Your task to perform on an android device: see sites visited before in the chrome app Image 0: 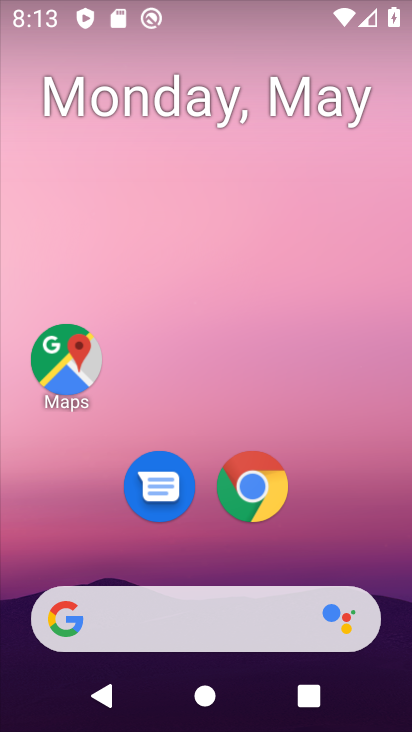
Step 0: click (247, 478)
Your task to perform on an android device: see sites visited before in the chrome app Image 1: 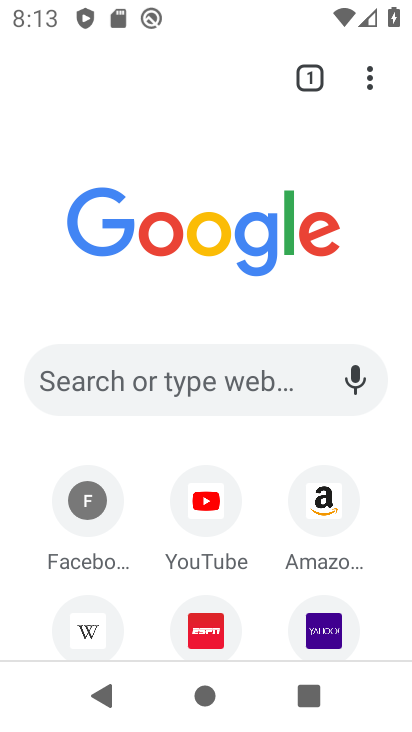
Step 1: click (372, 76)
Your task to perform on an android device: see sites visited before in the chrome app Image 2: 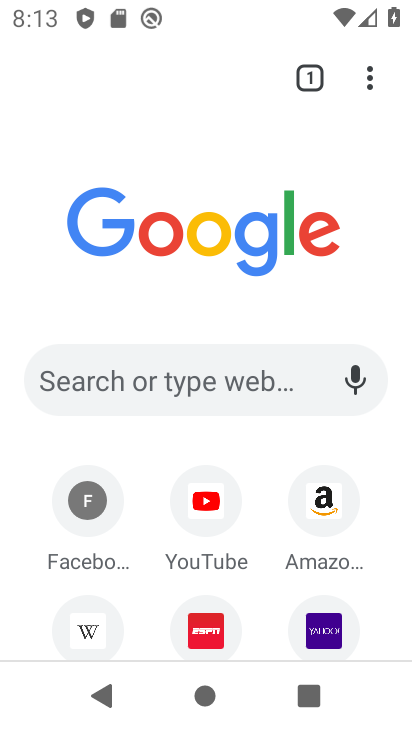
Step 2: click (371, 77)
Your task to perform on an android device: see sites visited before in the chrome app Image 3: 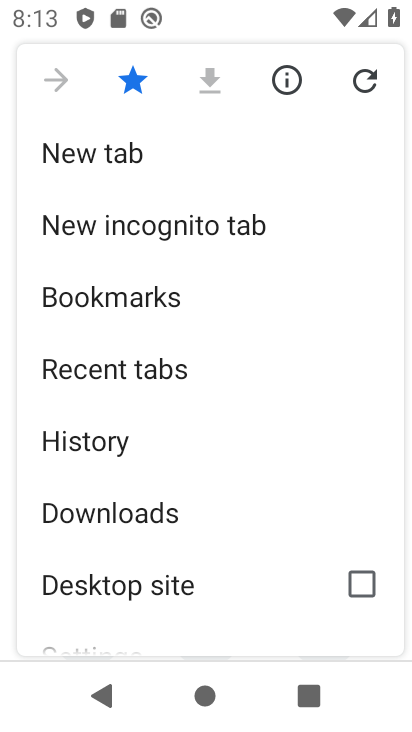
Step 3: drag from (193, 579) to (166, 417)
Your task to perform on an android device: see sites visited before in the chrome app Image 4: 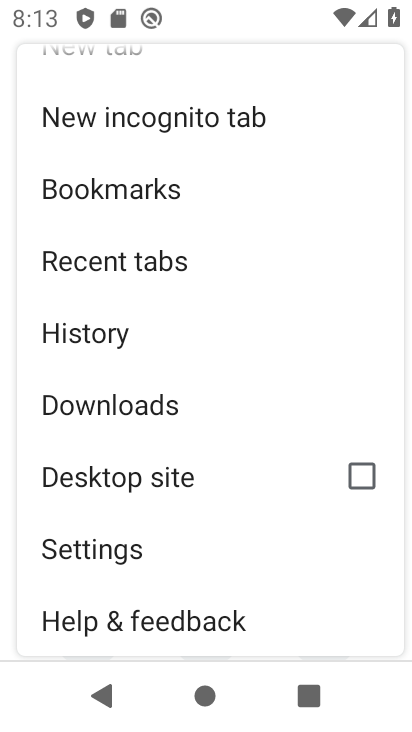
Step 4: click (45, 316)
Your task to perform on an android device: see sites visited before in the chrome app Image 5: 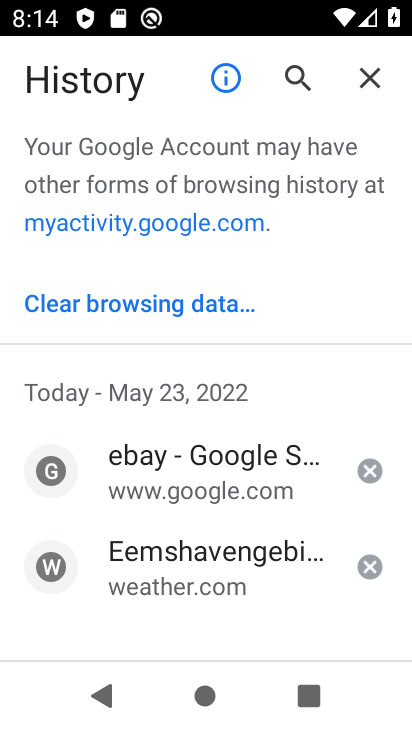
Step 5: task complete